Your task to perform on an android device: Open a new tab in the chrome app Image 0: 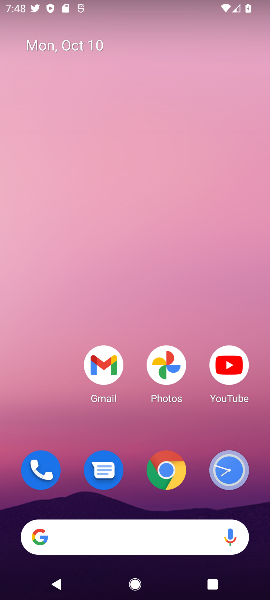
Step 0: click (168, 472)
Your task to perform on an android device: Open a new tab in the chrome app Image 1: 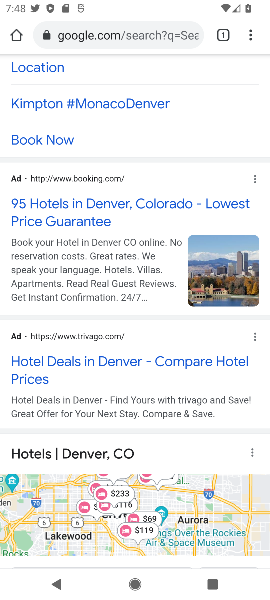
Step 1: click (221, 31)
Your task to perform on an android device: Open a new tab in the chrome app Image 2: 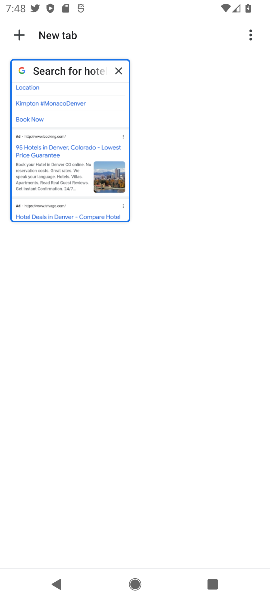
Step 2: click (21, 40)
Your task to perform on an android device: Open a new tab in the chrome app Image 3: 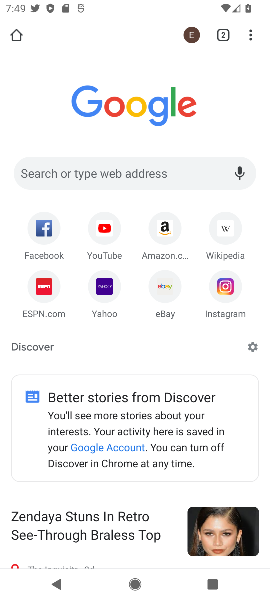
Step 3: task complete